Your task to perform on an android device: allow notifications from all sites in the chrome app Image 0: 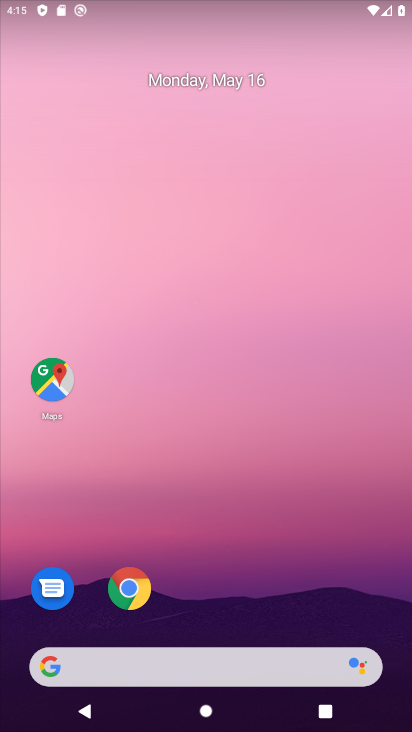
Step 0: drag from (230, 393) to (227, 3)
Your task to perform on an android device: allow notifications from all sites in the chrome app Image 1: 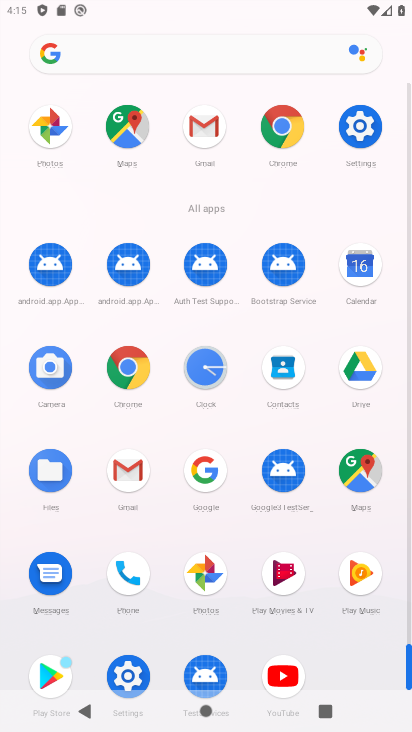
Step 1: drag from (18, 538) to (17, 237)
Your task to perform on an android device: allow notifications from all sites in the chrome app Image 2: 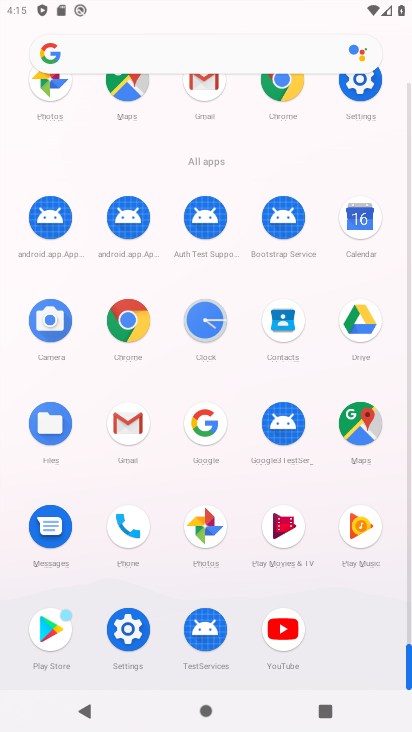
Step 2: drag from (10, 508) to (22, 204)
Your task to perform on an android device: allow notifications from all sites in the chrome app Image 3: 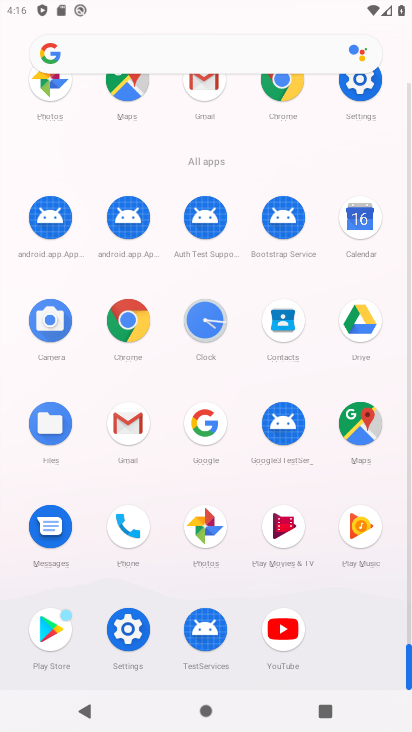
Step 3: click (128, 315)
Your task to perform on an android device: allow notifications from all sites in the chrome app Image 4: 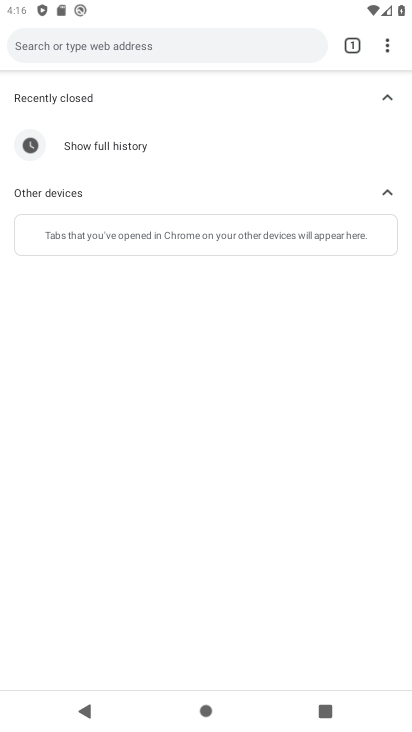
Step 4: drag from (388, 45) to (220, 381)
Your task to perform on an android device: allow notifications from all sites in the chrome app Image 5: 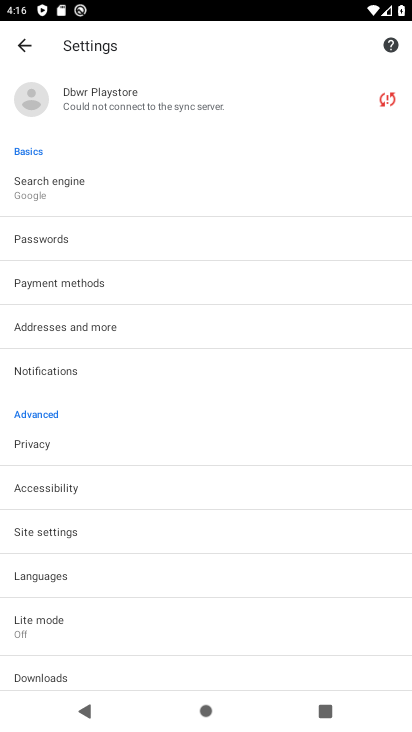
Step 5: drag from (196, 629) to (281, 223)
Your task to perform on an android device: allow notifications from all sites in the chrome app Image 6: 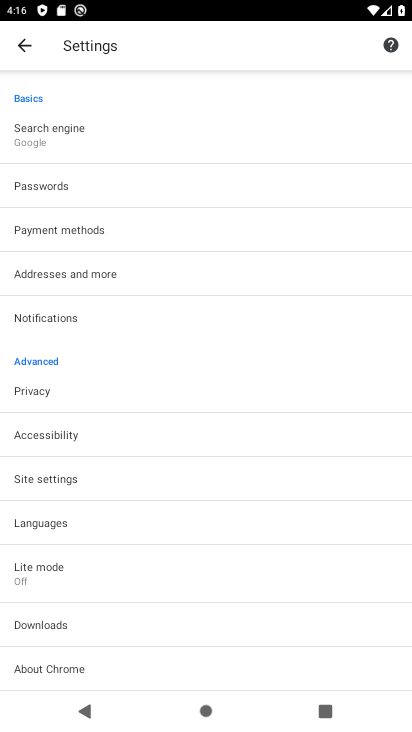
Step 6: drag from (96, 571) to (160, 202)
Your task to perform on an android device: allow notifications from all sites in the chrome app Image 7: 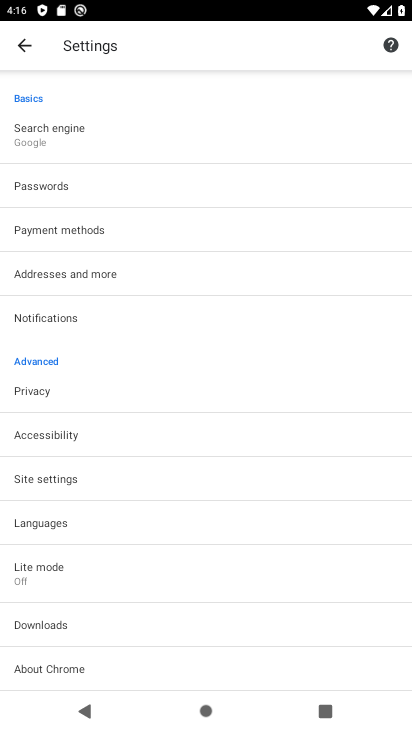
Step 7: click (62, 324)
Your task to perform on an android device: allow notifications from all sites in the chrome app Image 8: 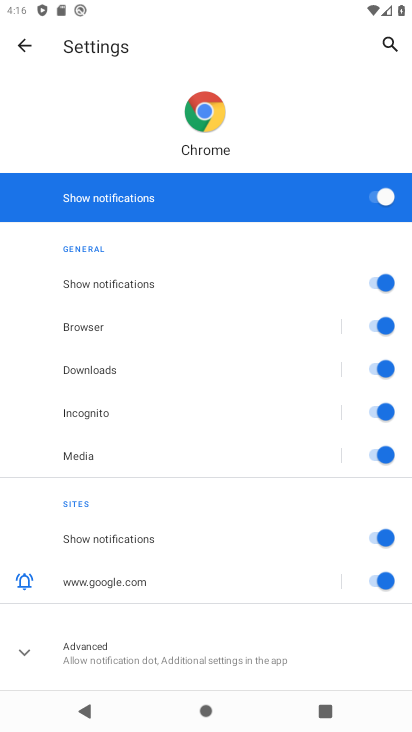
Step 8: drag from (198, 542) to (238, 150)
Your task to perform on an android device: allow notifications from all sites in the chrome app Image 9: 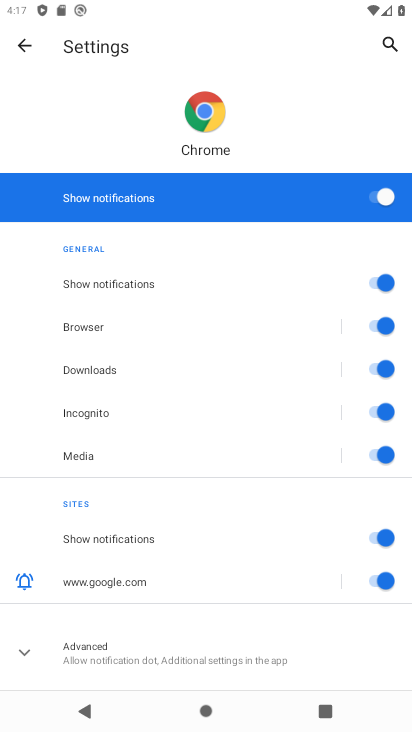
Step 9: click (54, 655)
Your task to perform on an android device: allow notifications from all sites in the chrome app Image 10: 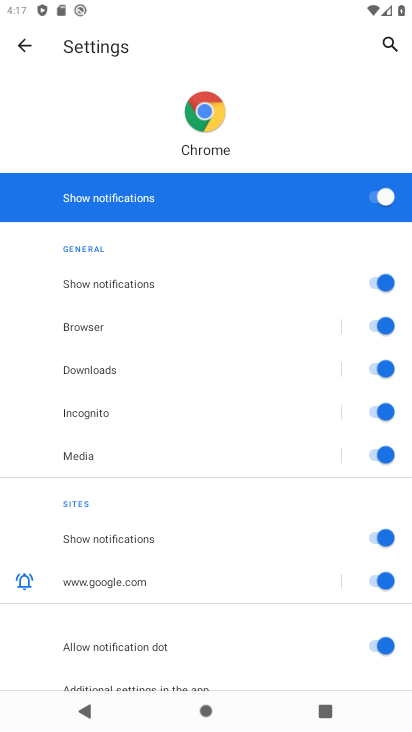
Step 10: drag from (230, 592) to (255, 183)
Your task to perform on an android device: allow notifications from all sites in the chrome app Image 11: 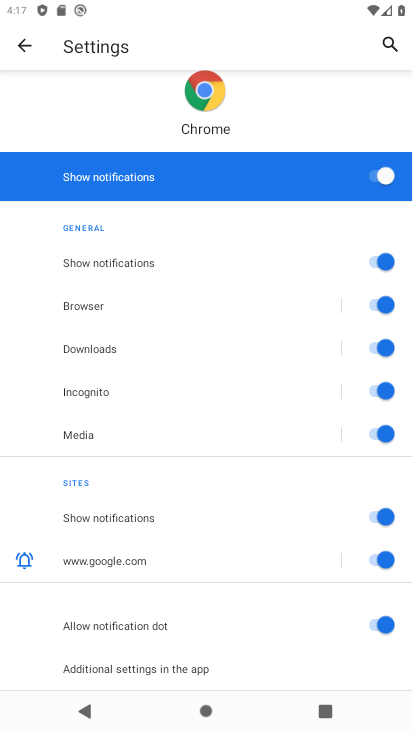
Step 11: drag from (213, 492) to (284, 160)
Your task to perform on an android device: allow notifications from all sites in the chrome app Image 12: 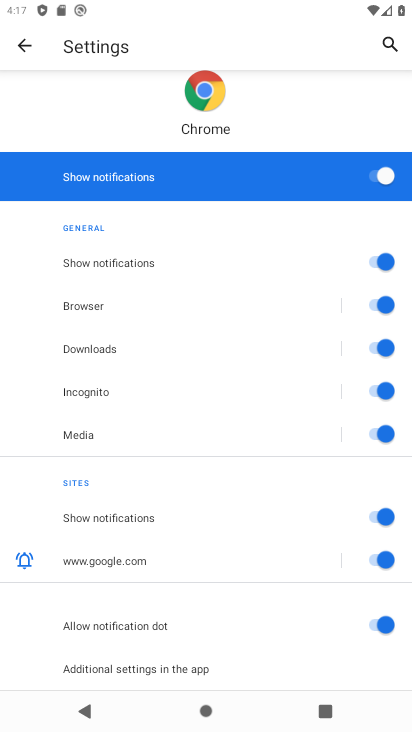
Step 12: drag from (240, 496) to (245, 138)
Your task to perform on an android device: allow notifications from all sites in the chrome app Image 13: 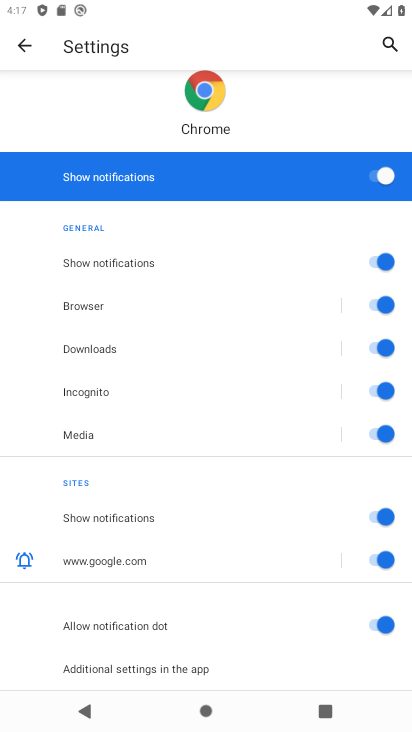
Step 13: drag from (278, 178) to (240, 589)
Your task to perform on an android device: allow notifications from all sites in the chrome app Image 14: 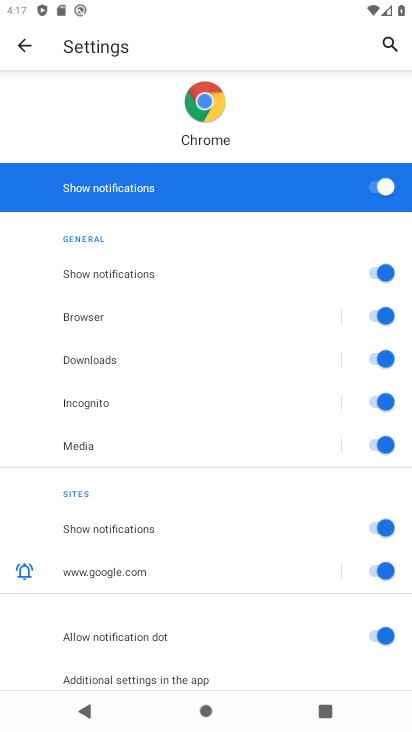
Step 14: click (40, 37)
Your task to perform on an android device: allow notifications from all sites in the chrome app Image 15: 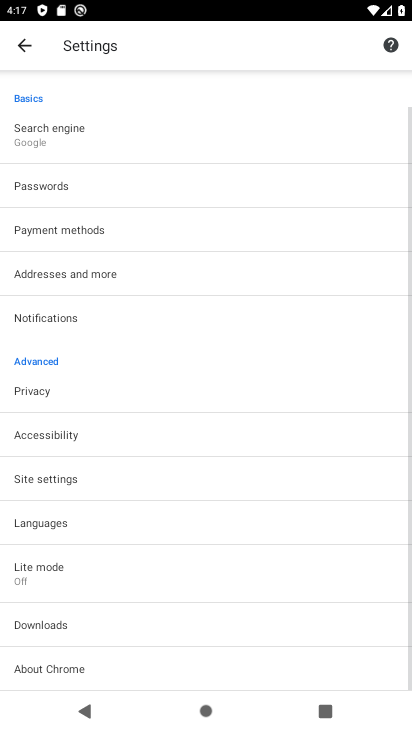
Step 15: click (64, 490)
Your task to perform on an android device: allow notifications from all sites in the chrome app Image 16: 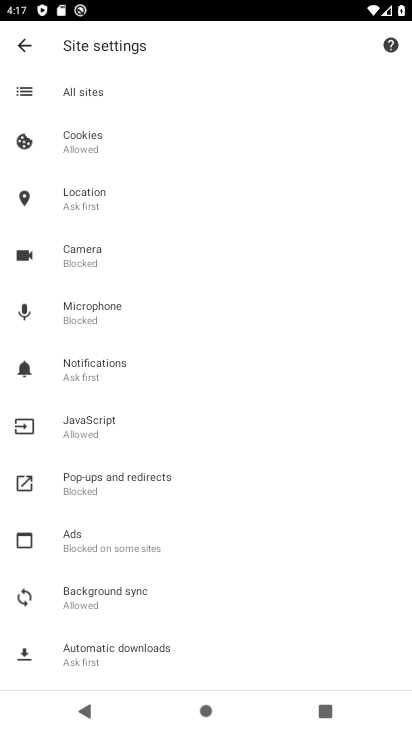
Step 16: click (107, 310)
Your task to perform on an android device: allow notifications from all sites in the chrome app Image 17: 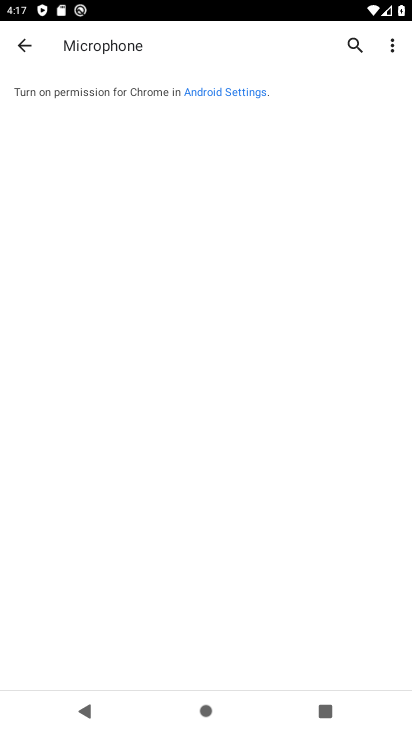
Step 17: click (21, 34)
Your task to perform on an android device: allow notifications from all sites in the chrome app Image 18: 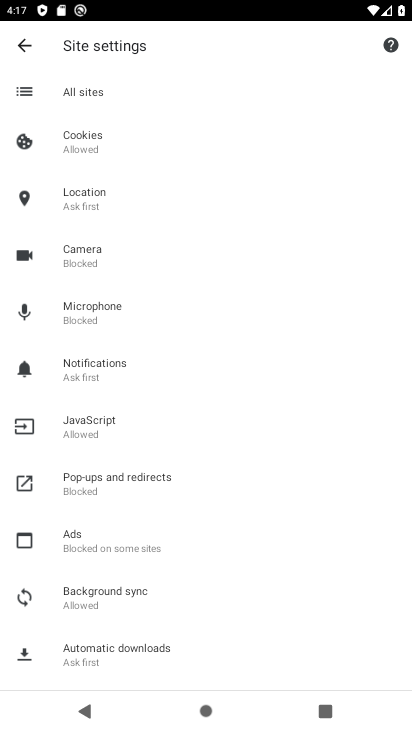
Step 18: drag from (171, 475) to (169, 374)
Your task to perform on an android device: allow notifications from all sites in the chrome app Image 19: 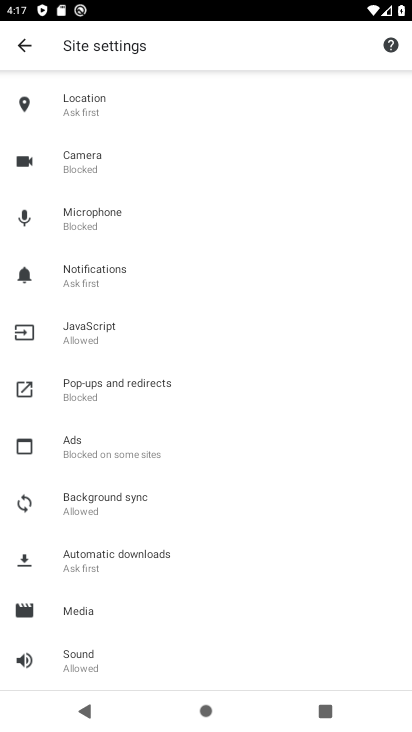
Step 19: click (116, 279)
Your task to perform on an android device: allow notifications from all sites in the chrome app Image 20: 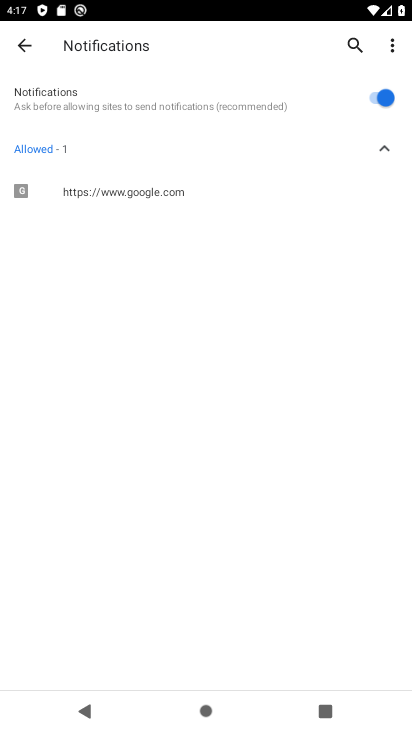
Step 20: task complete